Your task to perform on an android device: toggle translation in the chrome app Image 0: 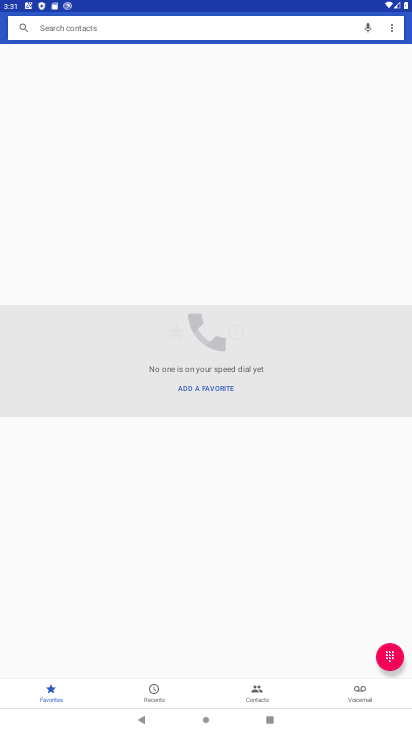
Step 0: press home button
Your task to perform on an android device: toggle translation in the chrome app Image 1: 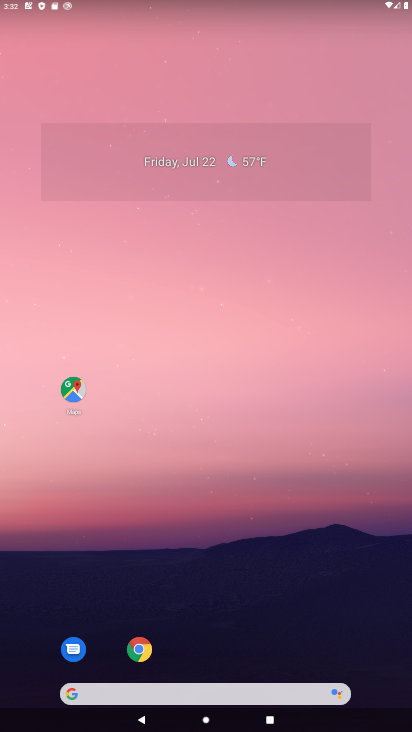
Step 1: click (133, 651)
Your task to perform on an android device: toggle translation in the chrome app Image 2: 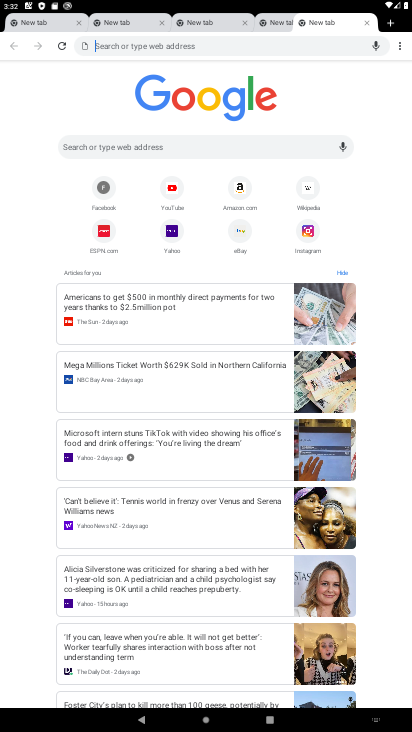
Step 2: click (399, 41)
Your task to perform on an android device: toggle translation in the chrome app Image 3: 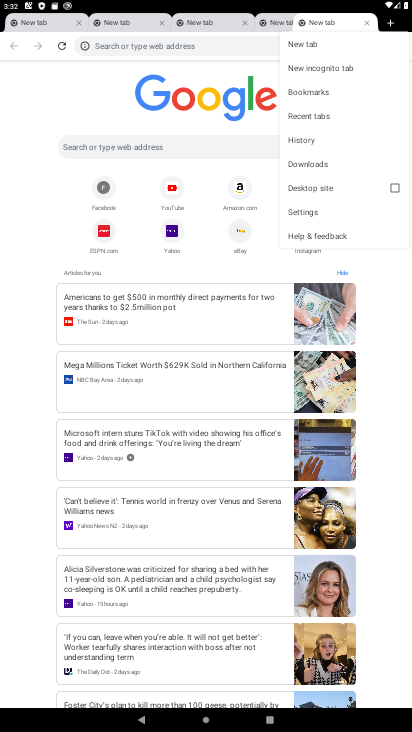
Step 3: click (289, 215)
Your task to perform on an android device: toggle translation in the chrome app Image 4: 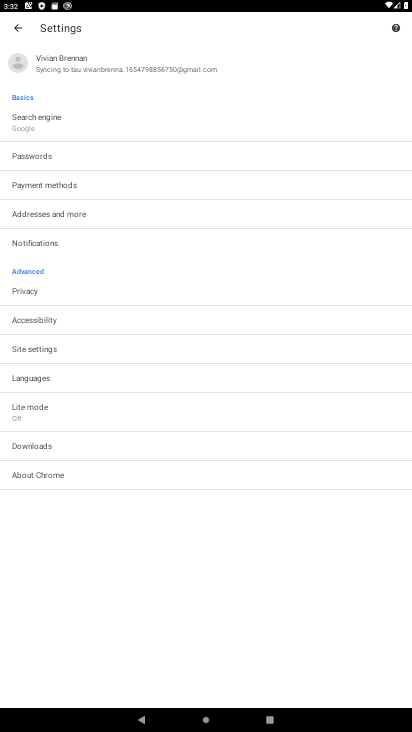
Step 4: click (39, 381)
Your task to perform on an android device: toggle translation in the chrome app Image 5: 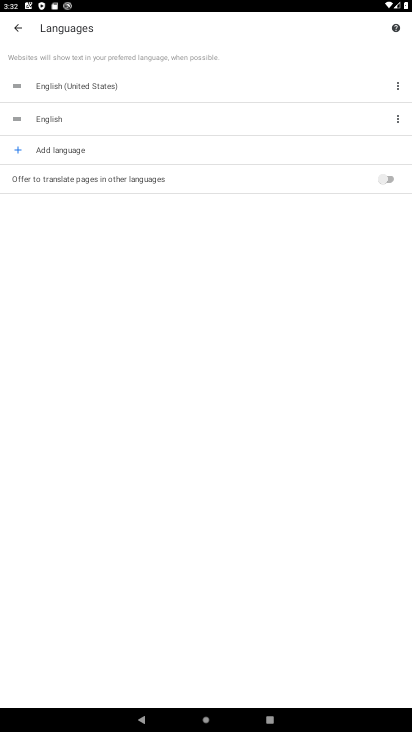
Step 5: click (379, 175)
Your task to perform on an android device: toggle translation in the chrome app Image 6: 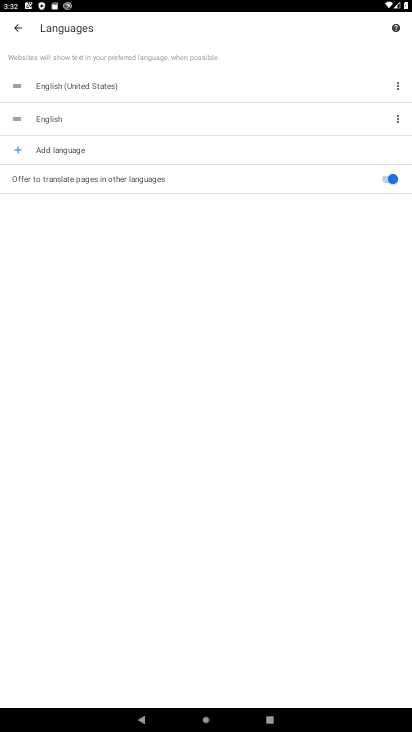
Step 6: task complete